Your task to perform on an android device: turn on wifi Image 0: 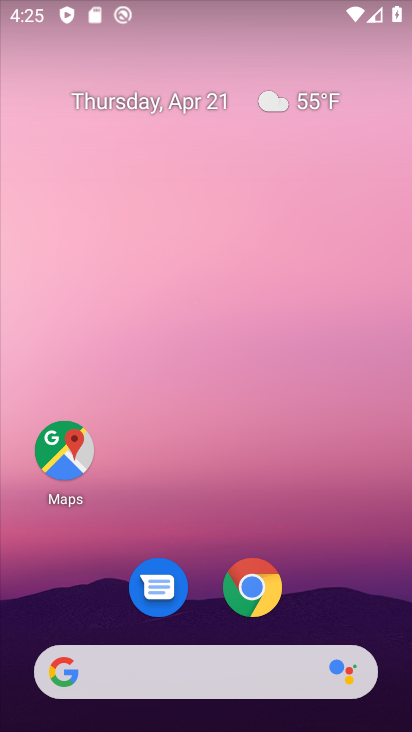
Step 0: click (282, 88)
Your task to perform on an android device: turn on wifi Image 1: 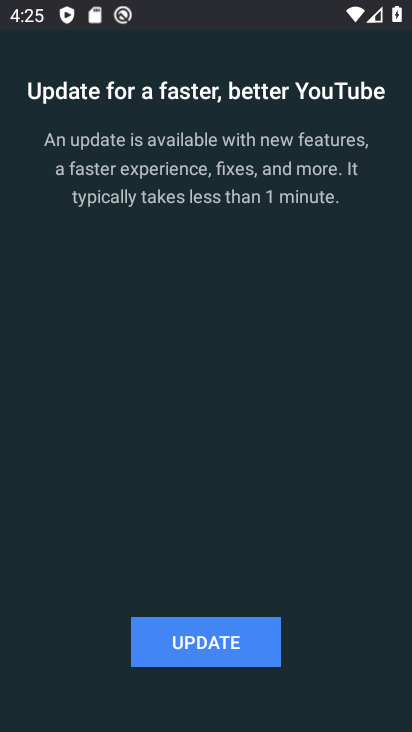
Step 1: press back button
Your task to perform on an android device: turn on wifi Image 2: 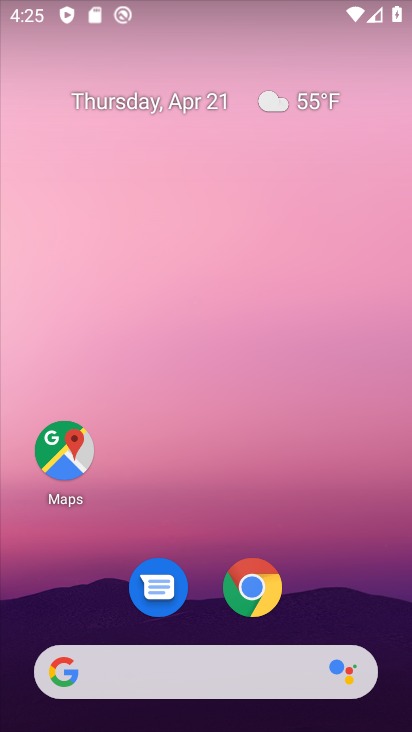
Step 2: drag from (94, 621) to (214, 179)
Your task to perform on an android device: turn on wifi Image 3: 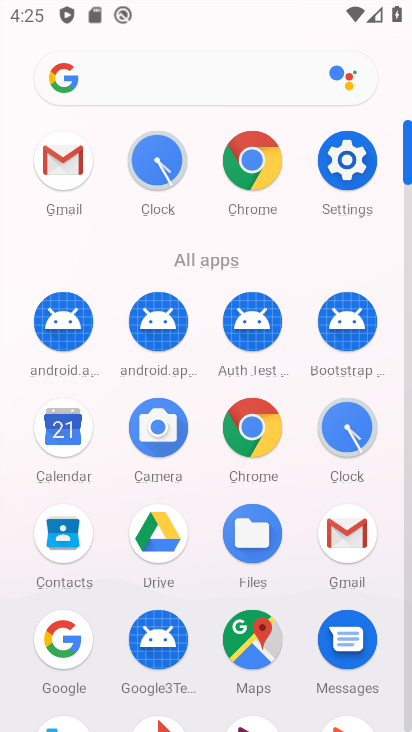
Step 3: click (344, 164)
Your task to perform on an android device: turn on wifi Image 4: 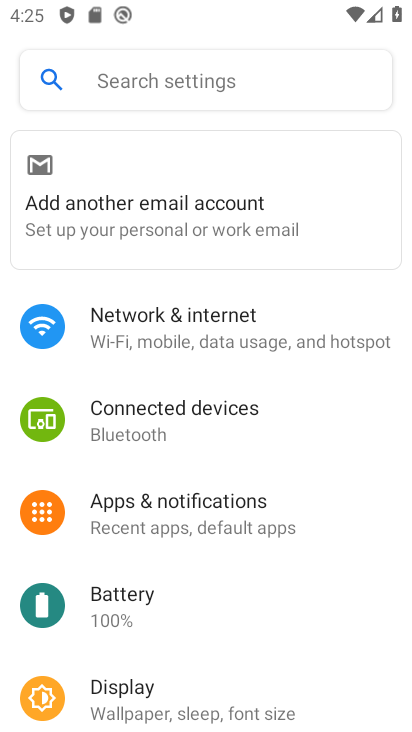
Step 4: click (228, 327)
Your task to perform on an android device: turn on wifi Image 5: 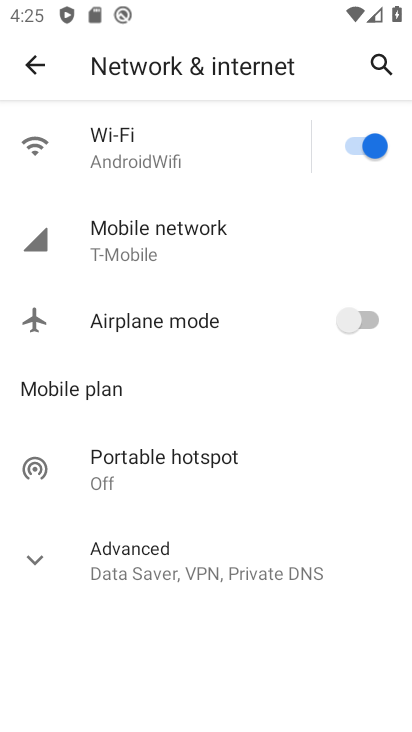
Step 5: task complete